Your task to perform on an android device: turn on data saver in the chrome app Image 0: 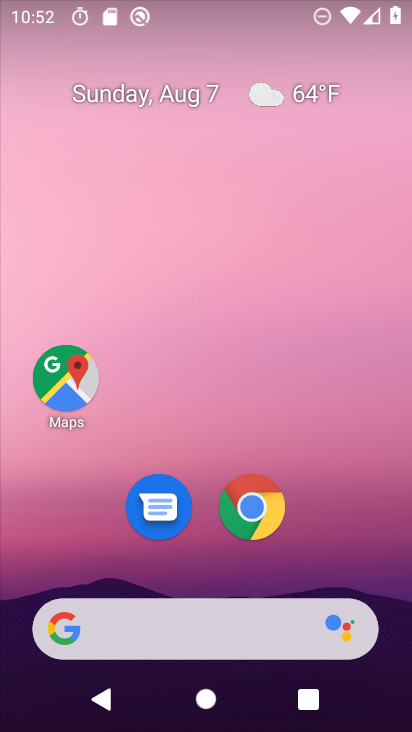
Step 0: drag from (362, 571) to (301, 13)
Your task to perform on an android device: turn on data saver in the chrome app Image 1: 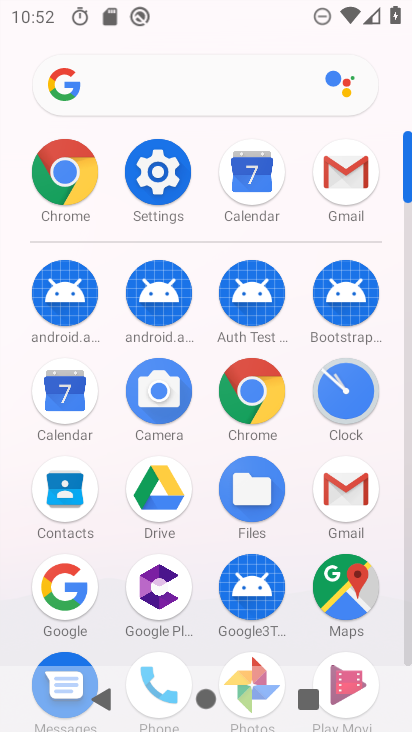
Step 1: click (249, 395)
Your task to perform on an android device: turn on data saver in the chrome app Image 2: 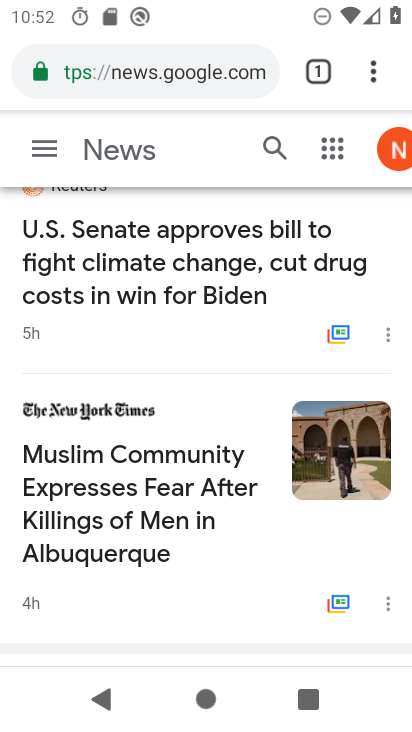
Step 2: drag from (402, 62) to (127, 516)
Your task to perform on an android device: turn on data saver in the chrome app Image 3: 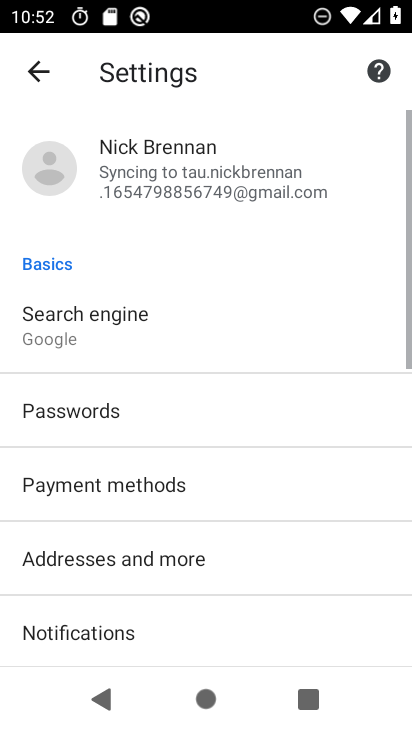
Step 3: drag from (243, 635) to (329, 71)
Your task to perform on an android device: turn on data saver in the chrome app Image 4: 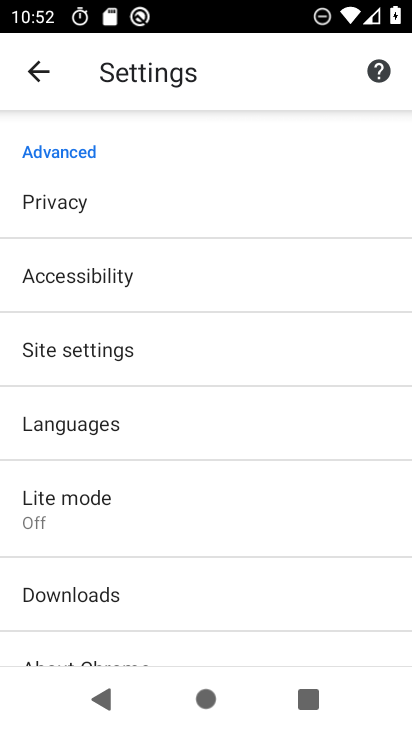
Step 4: click (119, 528)
Your task to perform on an android device: turn on data saver in the chrome app Image 5: 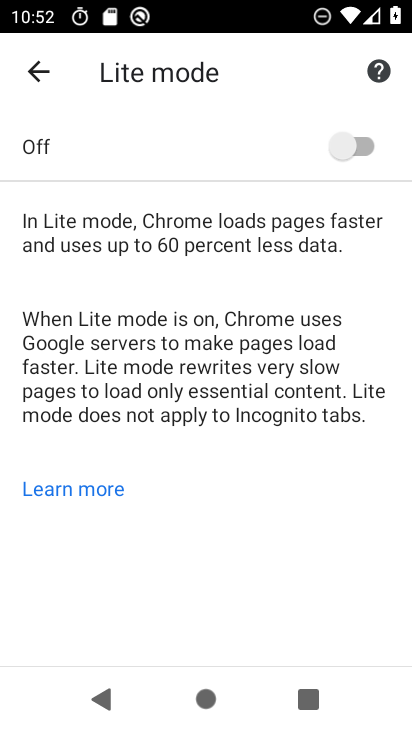
Step 5: click (331, 137)
Your task to perform on an android device: turn on data saver in the chrome app Image 6: 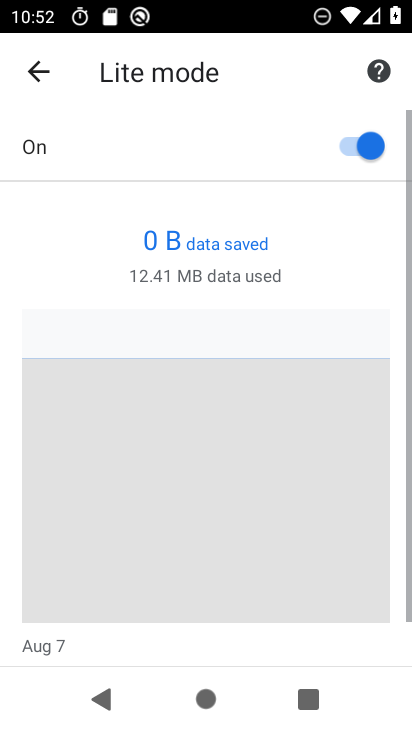
Step 6: task complete